Your task to perform on an android device: Open Youtube and go to "Your channel" Image 0: 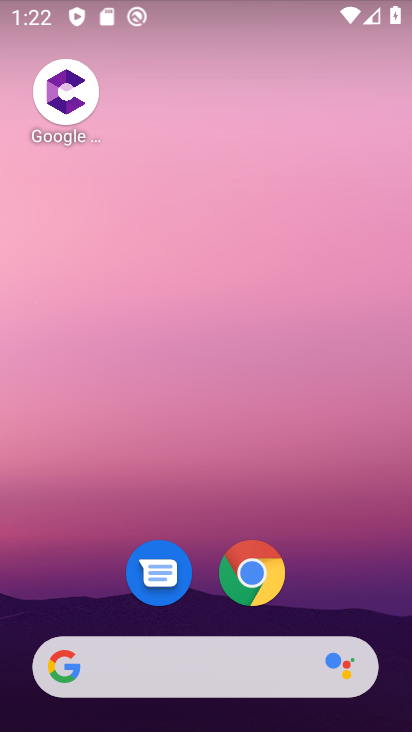
Step 0: drag from (280, 592) to (244, 77)
Your task to perform on an android device: Open Youtube and go to "Your channel" Image 1: 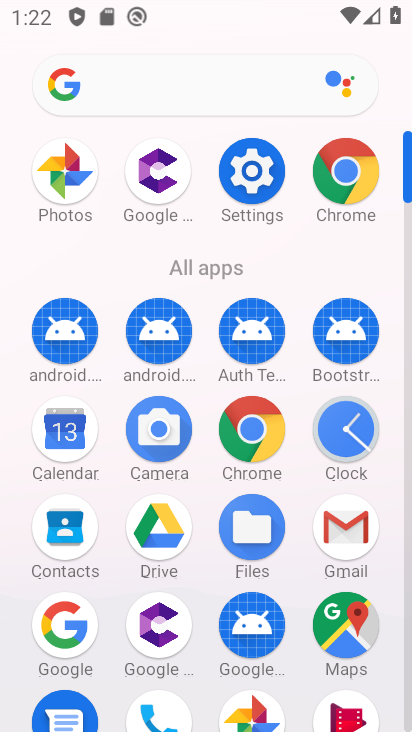
Step 1: click (285, 114)
Your task to perform on an android device: Open Youtube and go to "Your channel" Image 2: 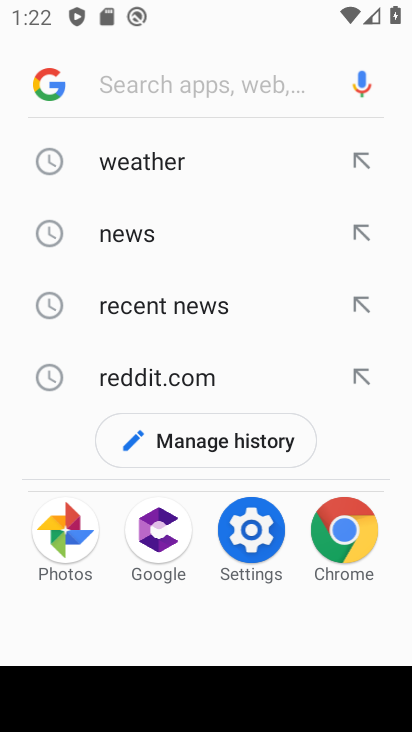
Step 2: press back button
Your task to perform on an android device: Open Youtube and go to "Your channel" Image 3: 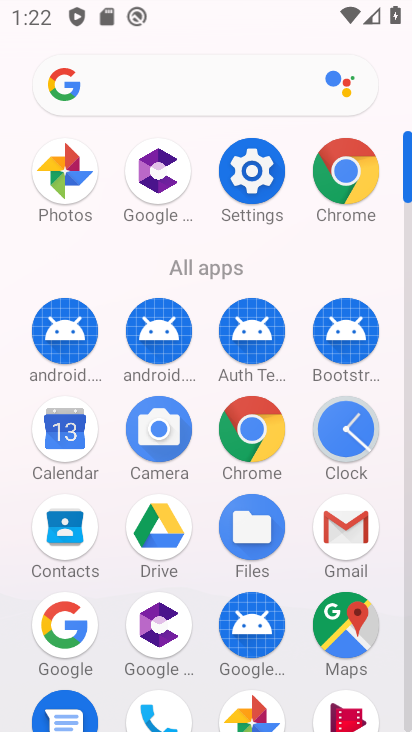
Step 3: drag from (271, 641) to (273, 228)
Your task to perform on an android device: Open Youtube and go to "Your channel" Image 4: 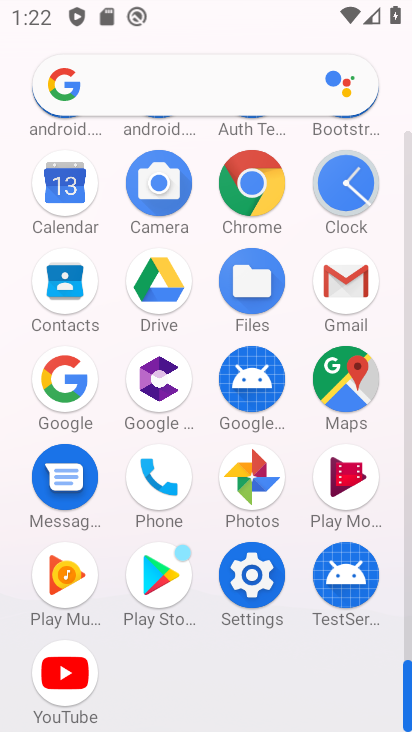
Step 4: click (62, 681)
Your task to perform on an android device: Open Youtube and go to "Your channel" Image 5: 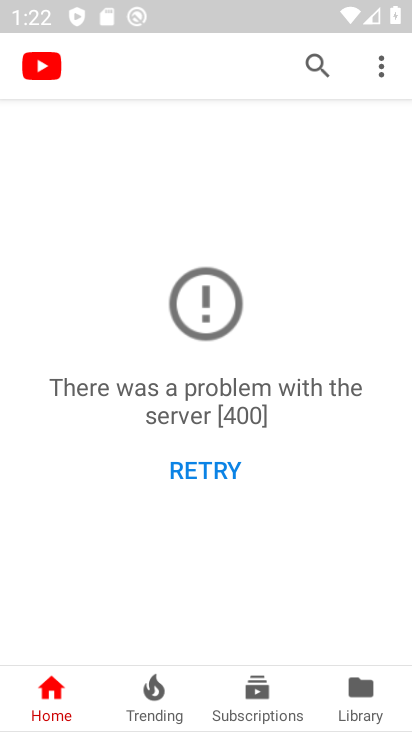
Step 5: click (355, 720)
Your task to perform on an android device: Open Youtube and go to "Your channel" Image 6: 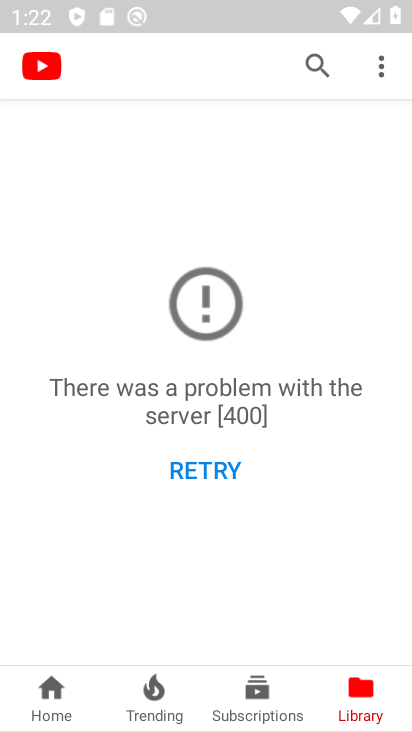
Step 6: task complete